Your task to perform on an android device: Open the Play Movies app and select the watchlist tab. Image 0: 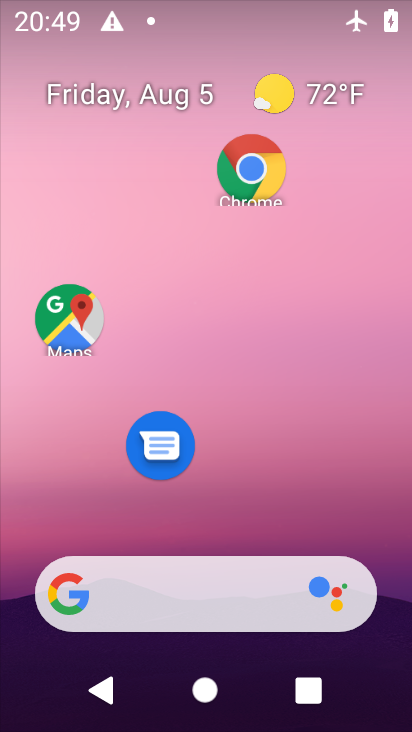
Step 0: drag from (193, 518) to (208, 94)
Your task to perform on an android device: Open the Play Movies app and select the watchlist tab. Image 1: 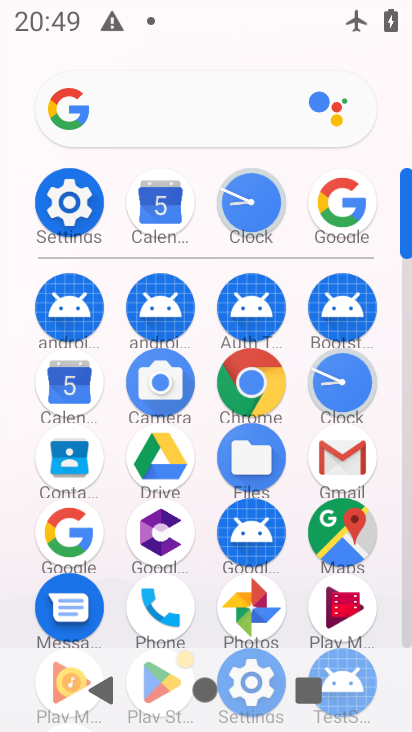
Step 1: click (331, 599)
Your task to perform on an android device: Open the Play Movies app and select the watchlist tab. Image 2: 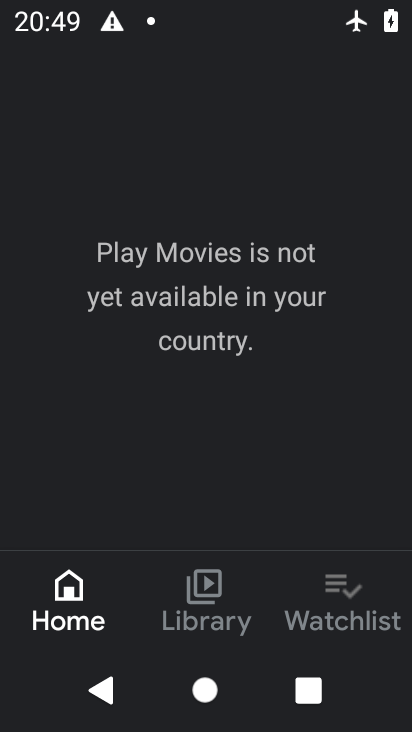
Step 2: click (342, 612)
Your task to perform on an android device: Open the Play Movies app and select the watchlist tab. Image 3: 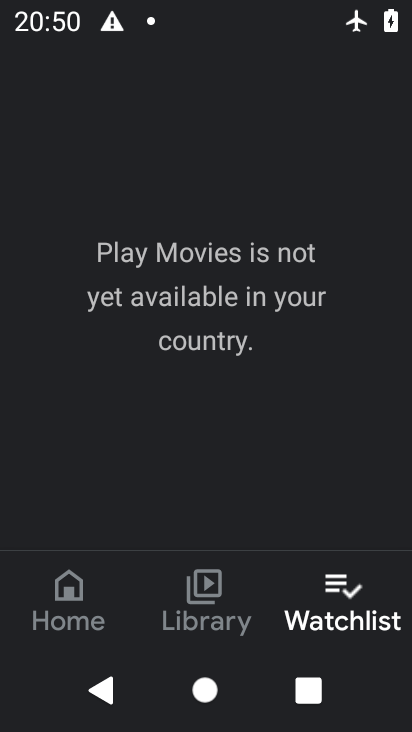
Step 3: task complete